Your task to perform on an android device: Set the phone to "Do not disturb". Image 0: 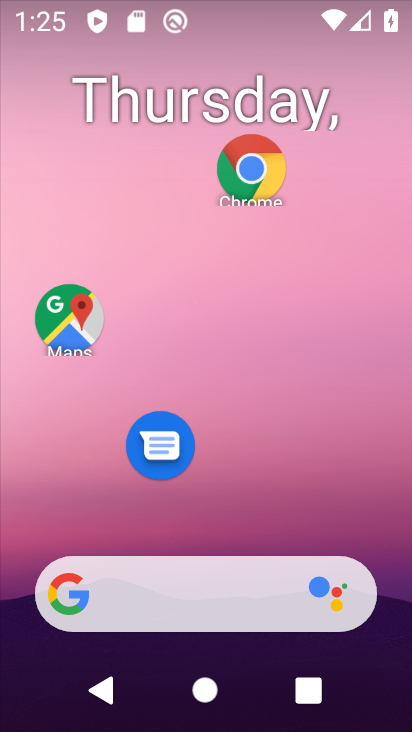
Step 0: click (291, 174)
Your task to perform on an android device: Set the phone to "Do not disturb". Image 1: 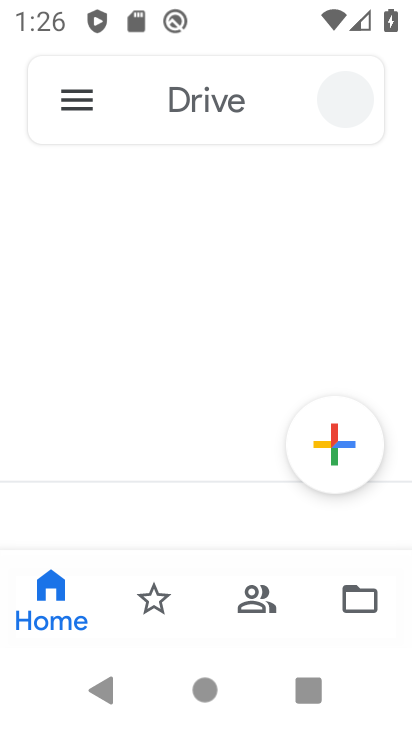
Step 1: press home button
Your task to perform on an android device: Set the phone to "Do not disturb". Image 2: 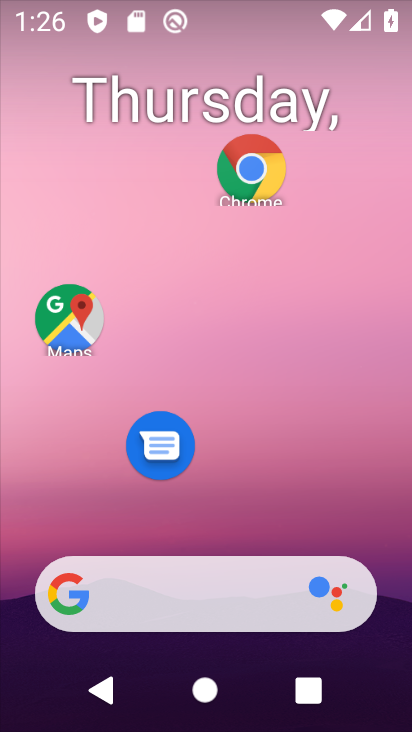
Step 2: drag from (217, 634) to (357, 111)
Your task to perform on an android device: Set the phone to "Do not disturb". Image 3: 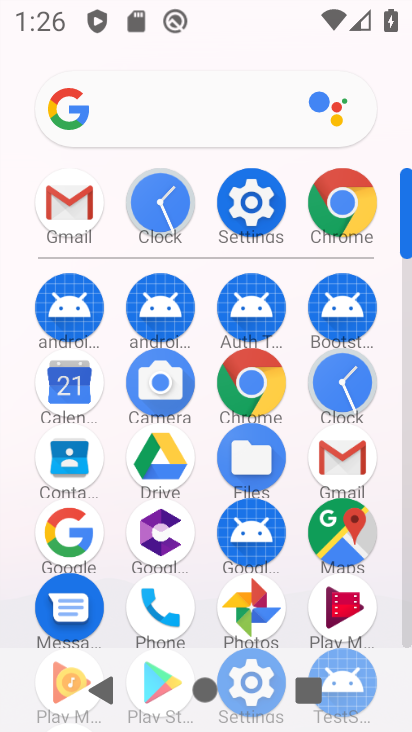
Step 3: click (256, 194)
Your task to perform on an android device: Set the phone to "Do not disturb". Image 4: 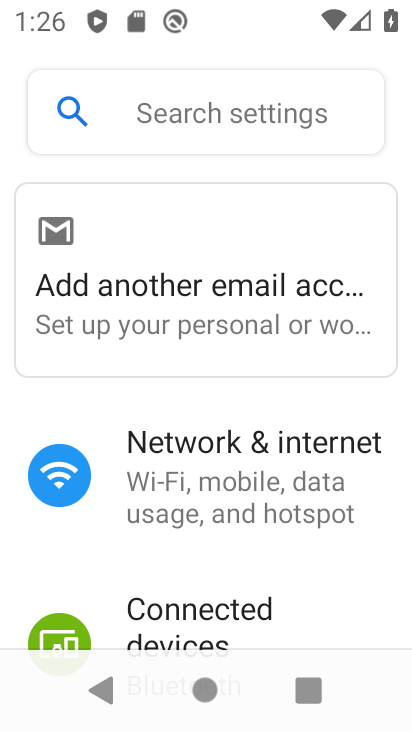
Step 4: click (230, 103)
Your task to perform on an android device: Set the phone to "Do not disturb". Image 5: 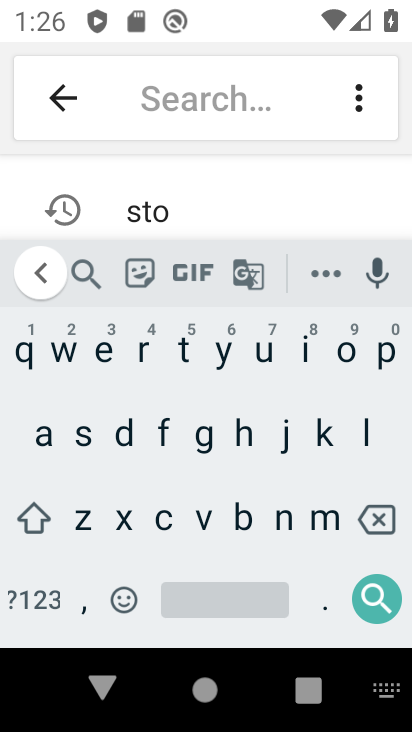
Step 5: click (127, 436)
Your task to perform on an android device: Set the phone to "Do not disturb". Image 6: 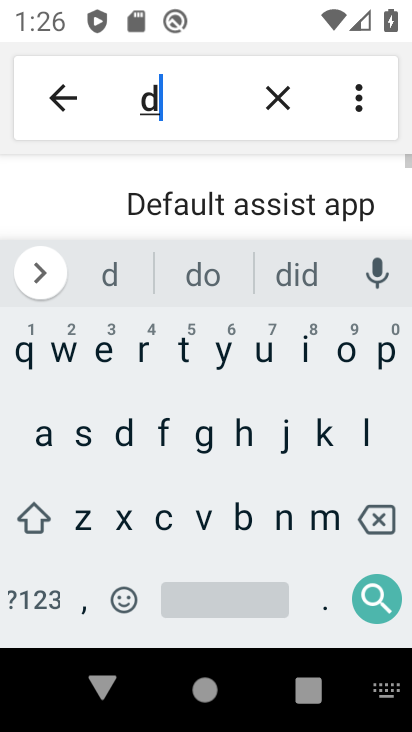
Step 6: click (275, 523)
Your task to perform on an android device: Set the phone to "Do not disturb". Image 7: 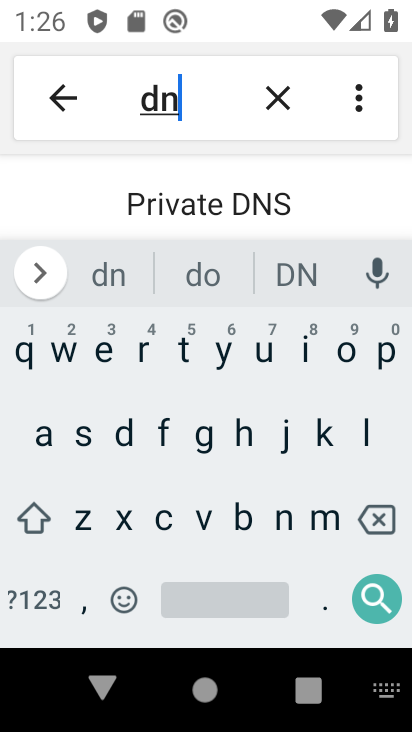
Step 7: click (122, 437)
Your task to perform on an android device: Set the phone to "Do not disturb". Image 8: 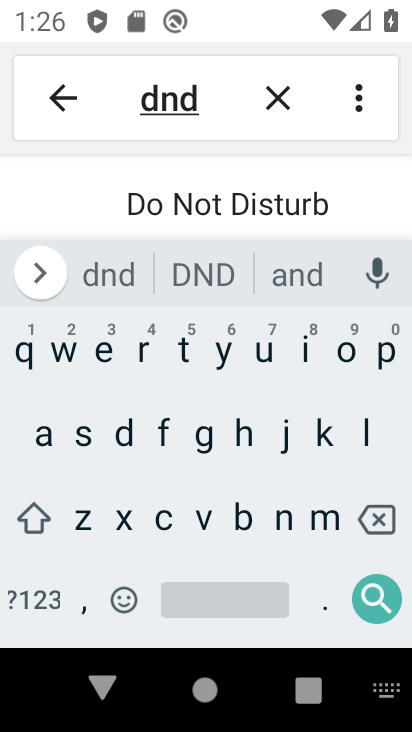
Step 8: click (208, 218)
Your task to perform on an android device: Set the phone to "Do not disturb". Image 9: 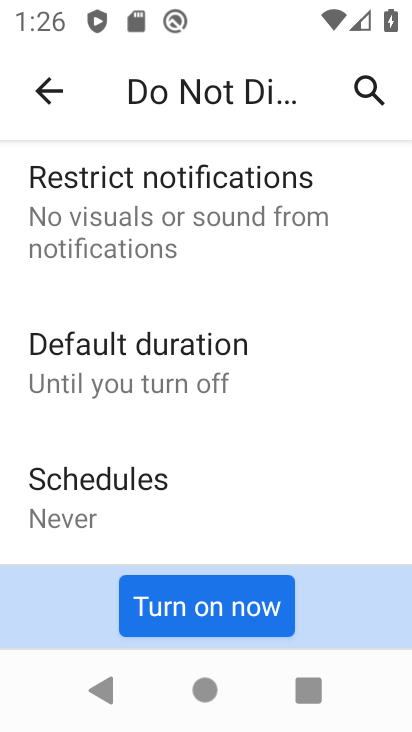
Step 9: click (180, 617)
Your task to perform on an android device: Set the phone to "Do not disturb". Image 10: 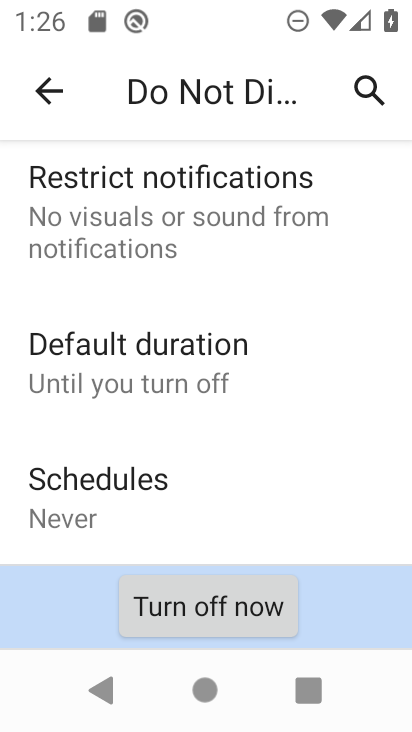
Step 10: task complete